Your task to perform on an android device: Clear the cart on walmart.com. Add jbl flip 4 to the cart on walmart.com, then select checkout. Image 0: 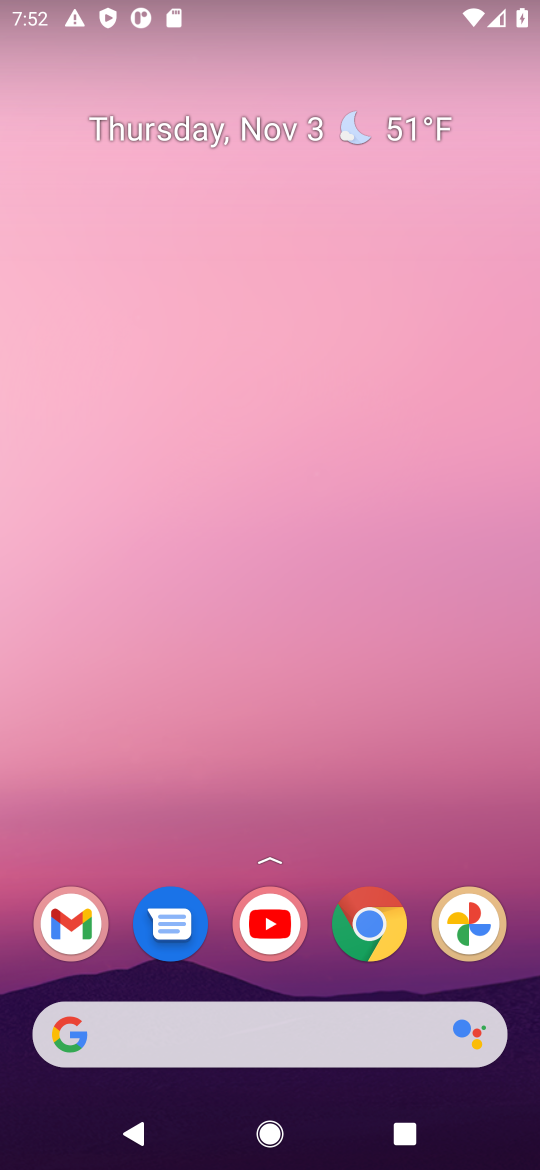
Step 0: drag from (197, 1042) to (297, 26)
Your task to perform on an android device: Clear the cart on walmart.com. Add jbl flip 4 to the cart on walmart.com, then select checkout. Image 1: 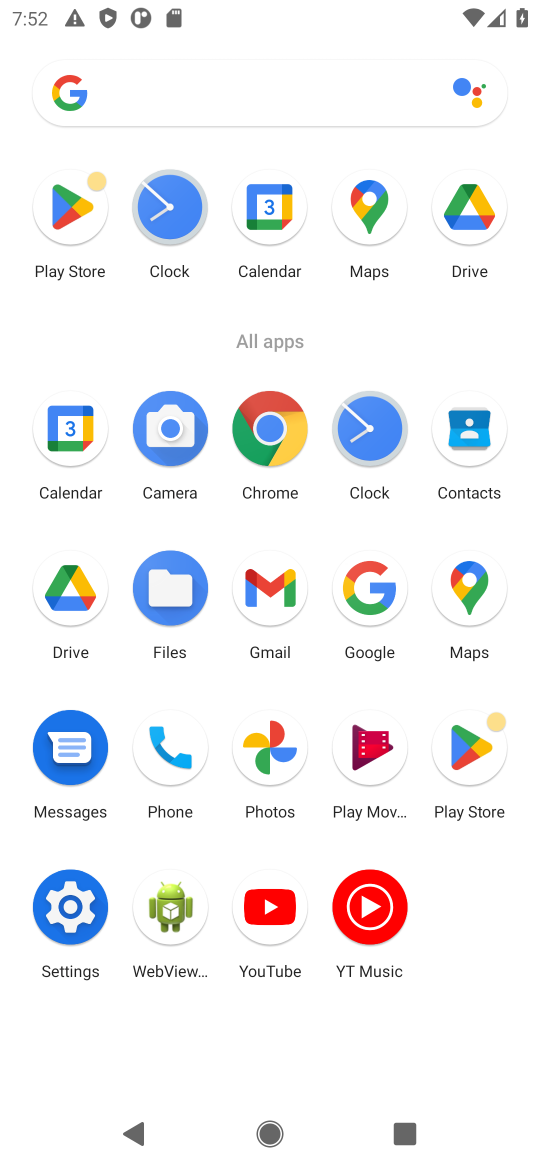
Step 1: click (355, 578)
Your task to perform on an android device: Clear the cart on walmart.com. Add jbl flip 4 to the cart on walmart.com, then select checkout. Image 2: 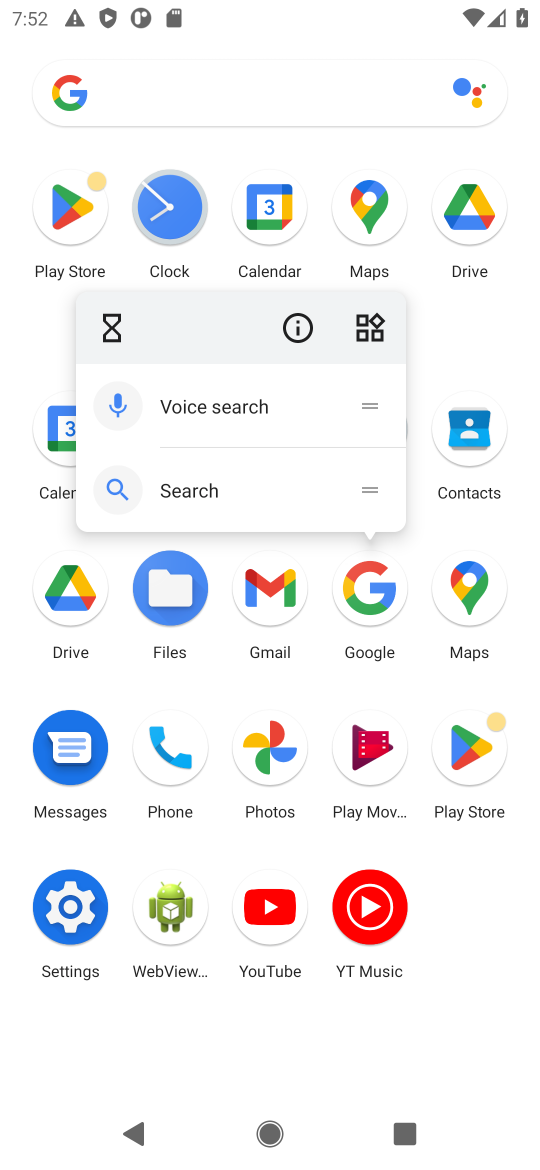
Step 2: click (358, 584)
Your task to perform on an android device: Clear the cart on walmart.com. Add jbl flip 4 to the cart on walmart.com, then select checkout. Image 3: 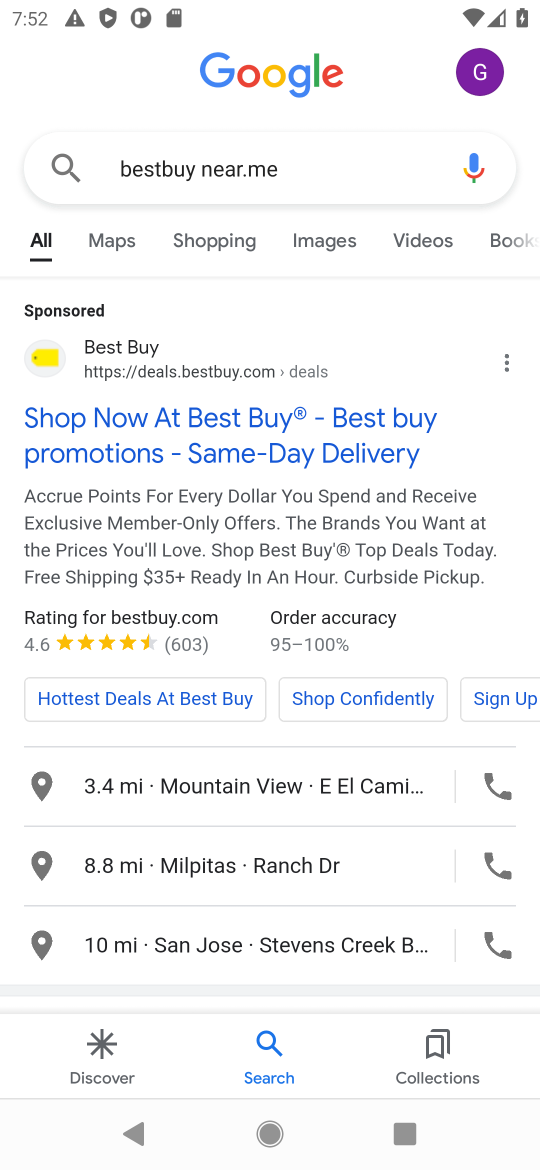
Step 3: click (283, 143)
Your task to perform on an android device: Clear the cart on walmart.com. Add jbl flip 4 to the cart on walmart.com, then select checkout. Image 4: 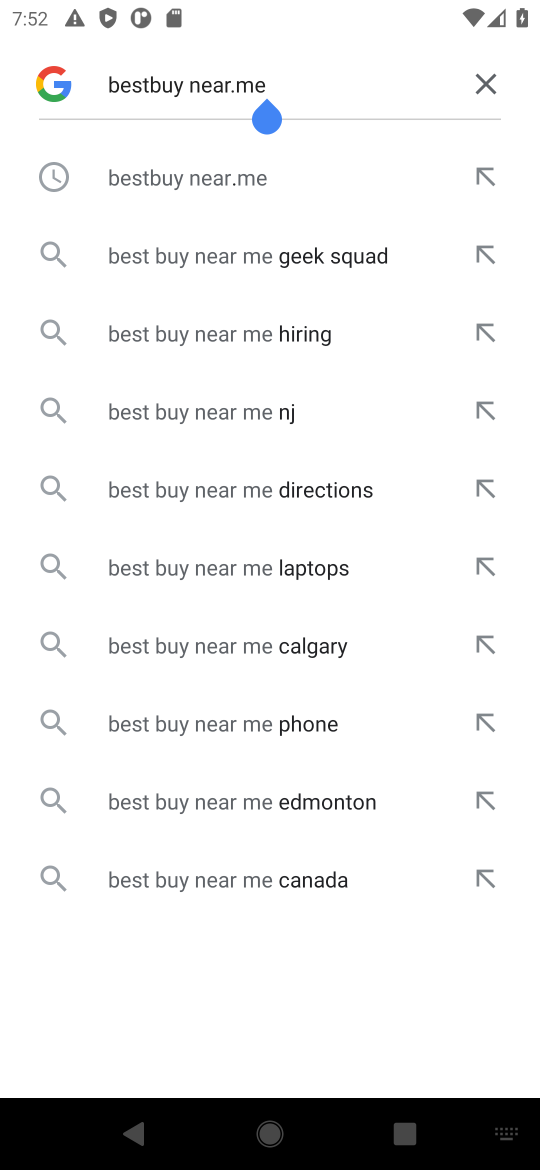
Step 4: click (484, 90)
Your task to perform on an android device: Clear the cart on walmart.com. Add jbl flip 4 to the cart on walmart.com, then select checkout. Image 5: 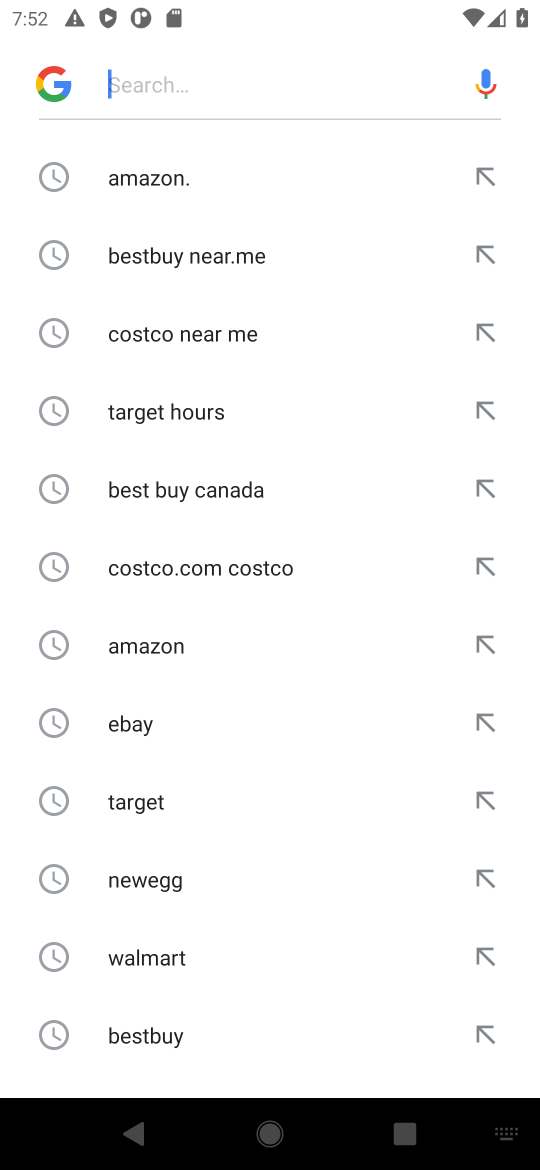
Step 5: click (225, 59)
Your task to perform on an android device: Clear the cart on walmart.com. Add jbl flip 4 to the cart on walmart.com, then select checkout. Image 6: 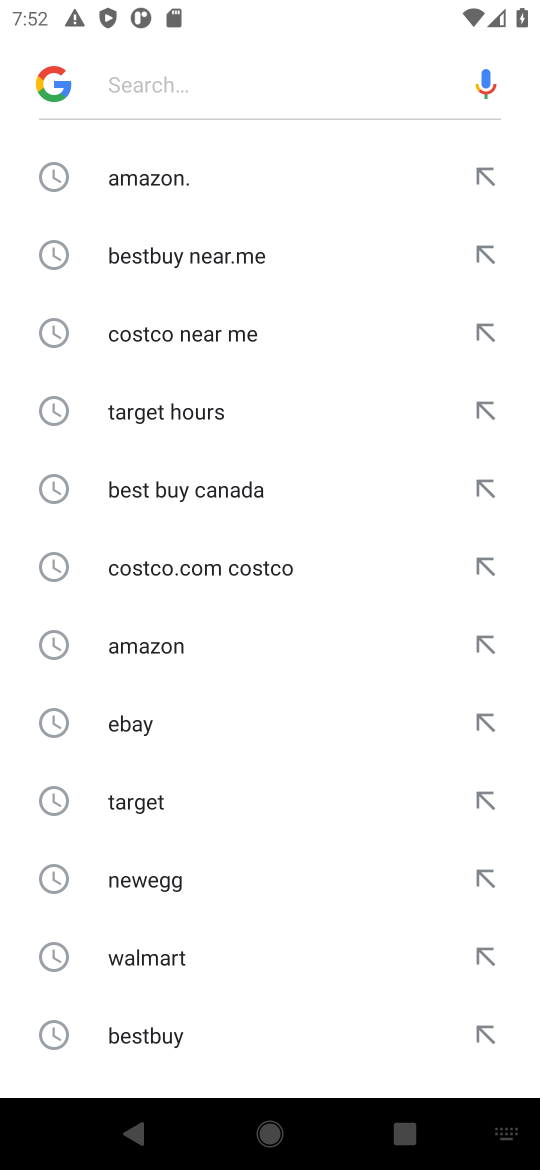
Step 6: click (222, 74)
Your task to perform on an android device: Clear the cart on walmart.com. Add jbl flip 4 to the cart on walmart.com, then select checkout. Image 7: 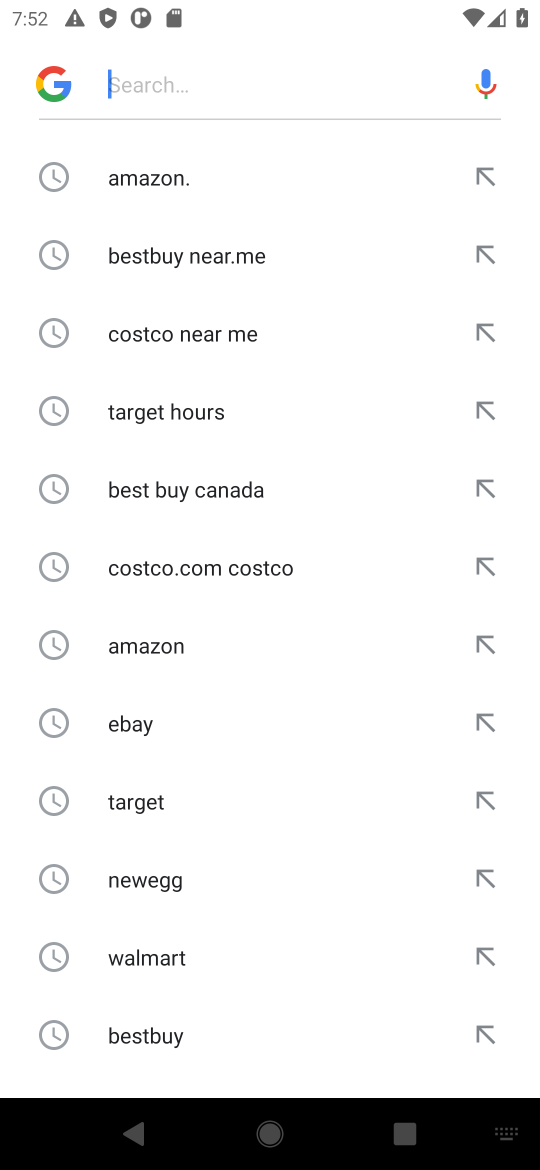
Step 7: type "walmart "
Your task to perform on an android device: Clear the cart on walmart.com. Add jbl flip 4 to the cart on walmart.com, then select checkout. Image 8: 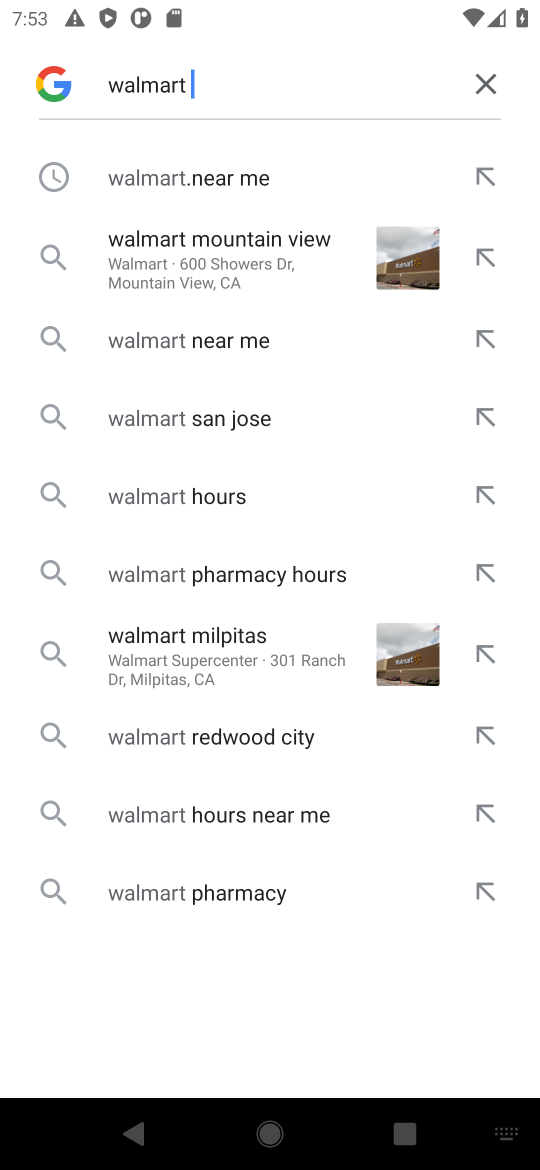
Step 8: click (198, 185)
Your task to perform on an android device: Clear the cart on walmart.com. Add jbl flip 4 to the cart on walmart.com, then select checkout. Image 9: 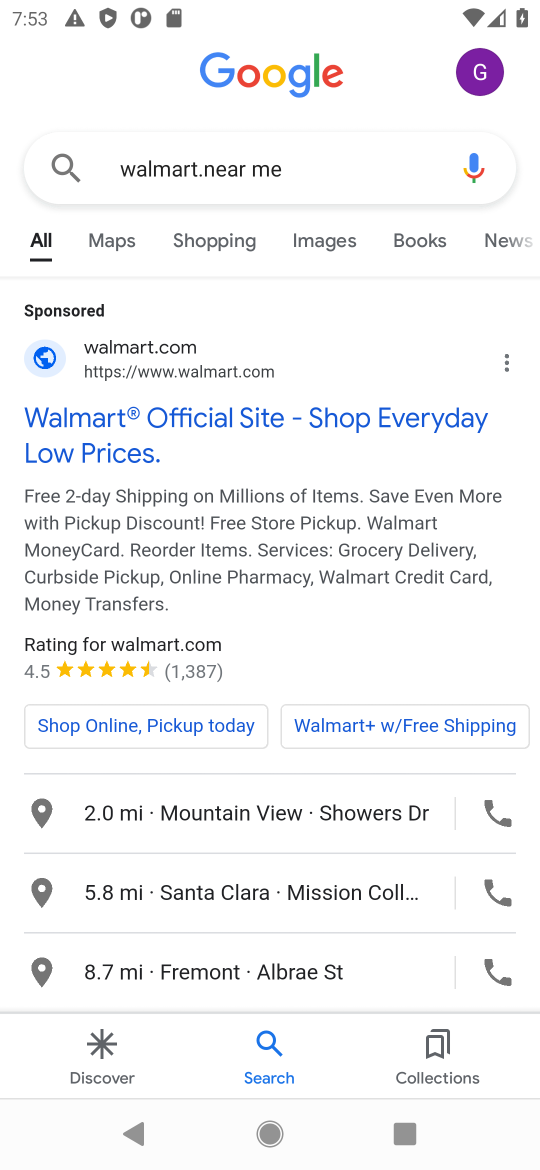
Step 9: drag from (112, 907) to (219, 392)
Your task to perform on an android device: Clear the cart on walmart.com. Add jbl flip 4 to the cart on walmart.com, then select checkout. Image 10: 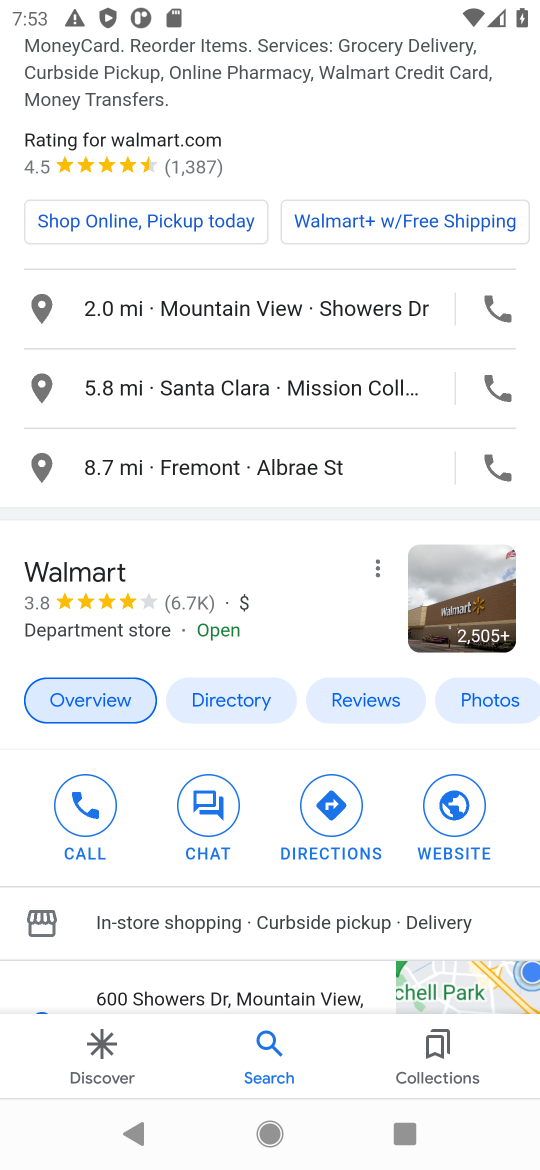
Step 10: drag from (227, 978) to (297, 284)
Your task to perform on an android device: Clear the cart on walmart.com. Add jbl flip 4 to the cart on walmart.com, then select checkout. Image 11: 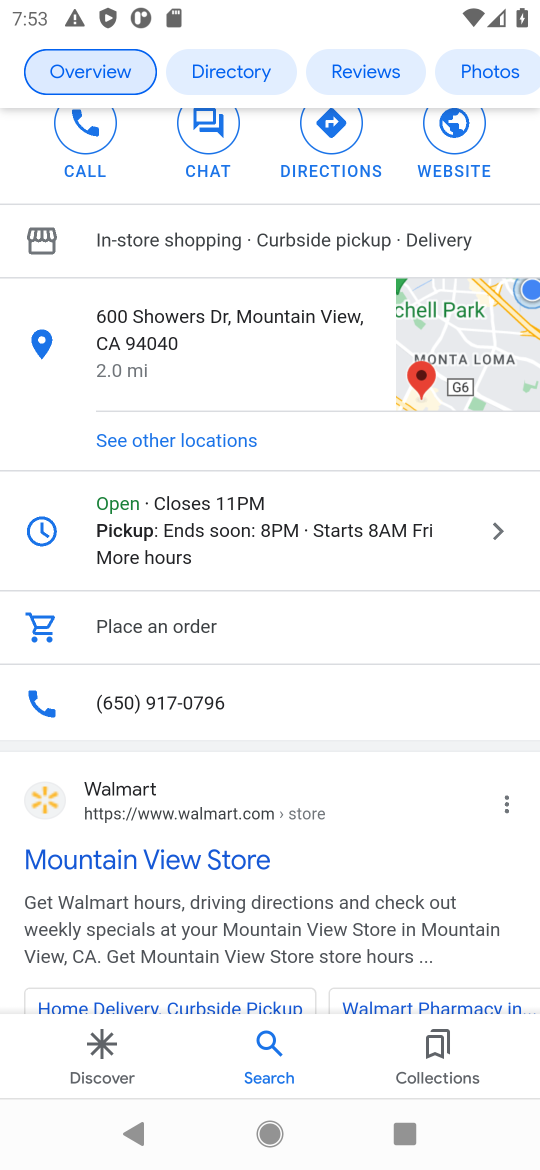
Step 11: click (51, 798)
Your task to perform on an android device: Clear the cart on walmart.com. Add jbl flip 4 to the cart on walmart.com, then select checkout. Image 12: 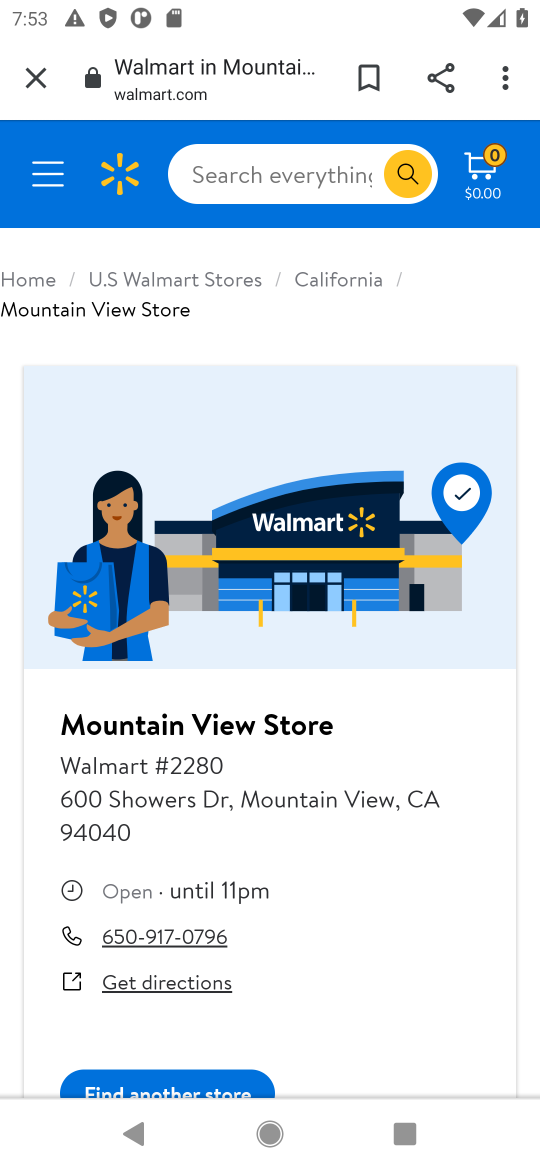
Step 12: click (300, 175)
Your task to perform on an android device: Clear the cart on walmart.com. Add jbl flip 4 to the cart on walmart.com, then select checkout. Image 13: 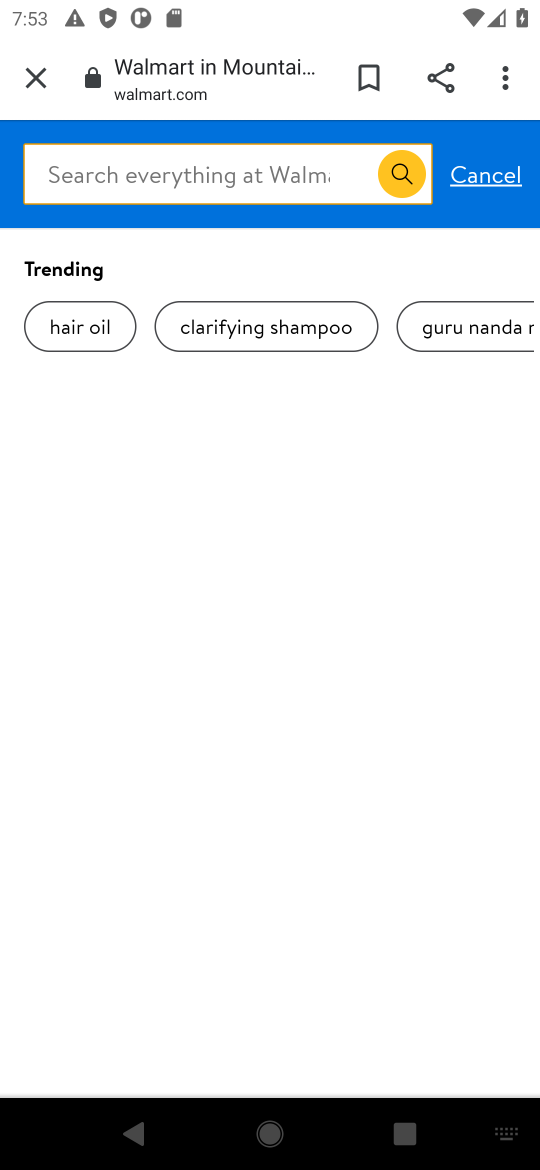
Step 13: click (273, 162)
Your task to perform on an android device: Clear the cart on walmart.com. Add jbl flip 4 to the cart on walmart.com, then select checkout. Image 14: 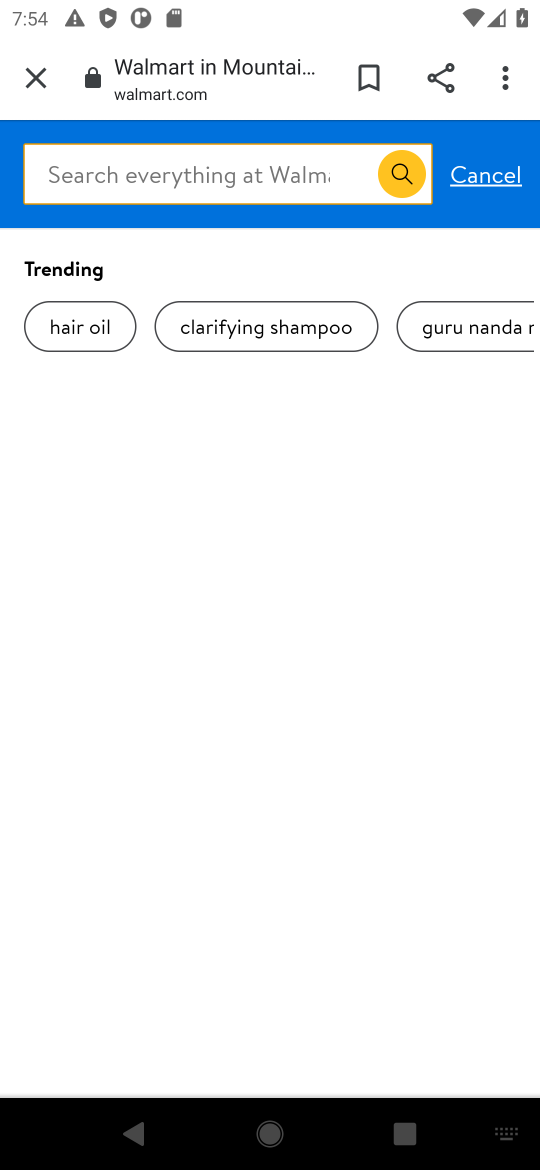
Step 14: type "jbl flip 4 "
Your task to perform on an android device: Clear the cart on walmart.com. Add jbl flip 4 to the cart on walmart.com, then select checkout. Image 15: 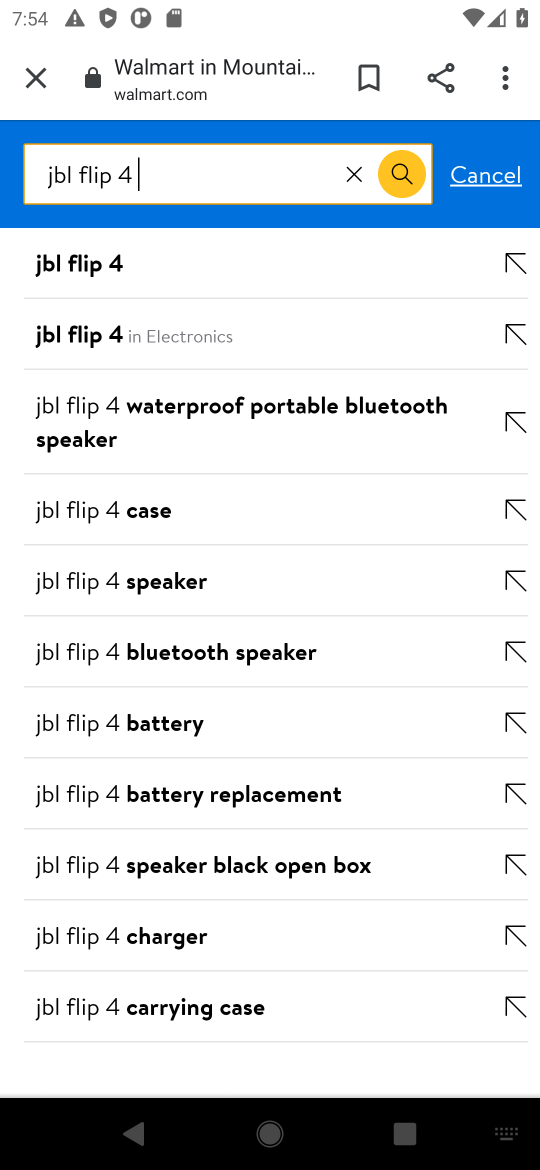
Step 15: click (85, 259)
Your task to perform on an android device: Clear the cart on walmart.com. Add jbl flip 4 to the cart on walmart.com, then select checkout. Image 16: 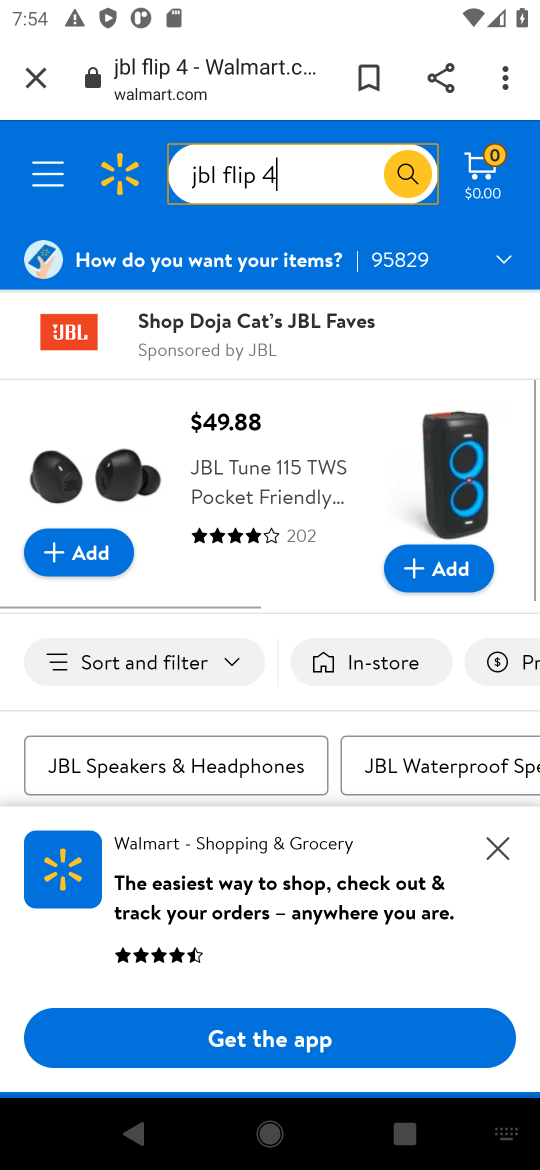
Step 16: click (501, 848)
Your task to perform on an android device: Clear the cart on walmart.com. Add jbl flip 4 to the cart on walmart.com, then select checkout. Image 17: 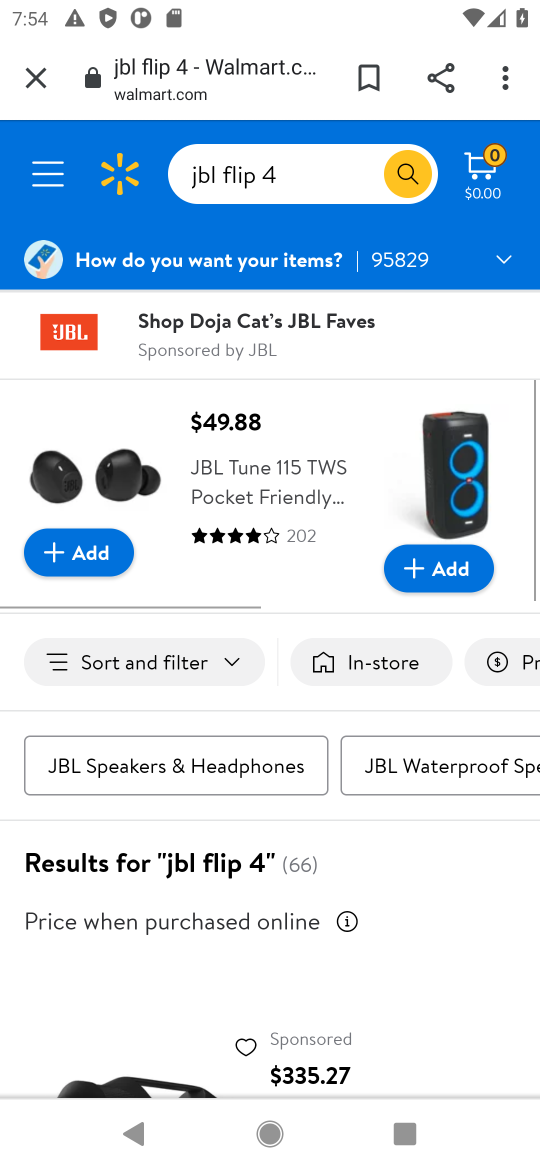
Step 17: click (77, 528)
Your task to perform on an android device: Clear the cart on walmart.com. Add jbl flip 4 to the cart on walmart.com, then select checkout. Image 18: 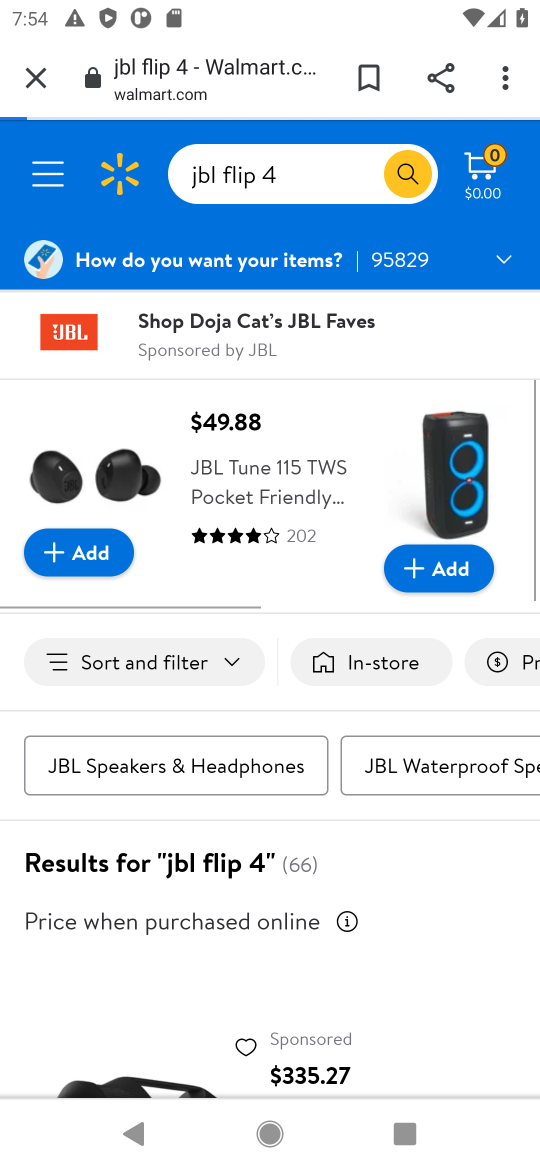
Step 18: click (77, 549)
Your task to perform on an android device: Clear the cart on walmart.com. Add jbl flip 4 to the cart on walmart.com, then select checkout. Image 19: 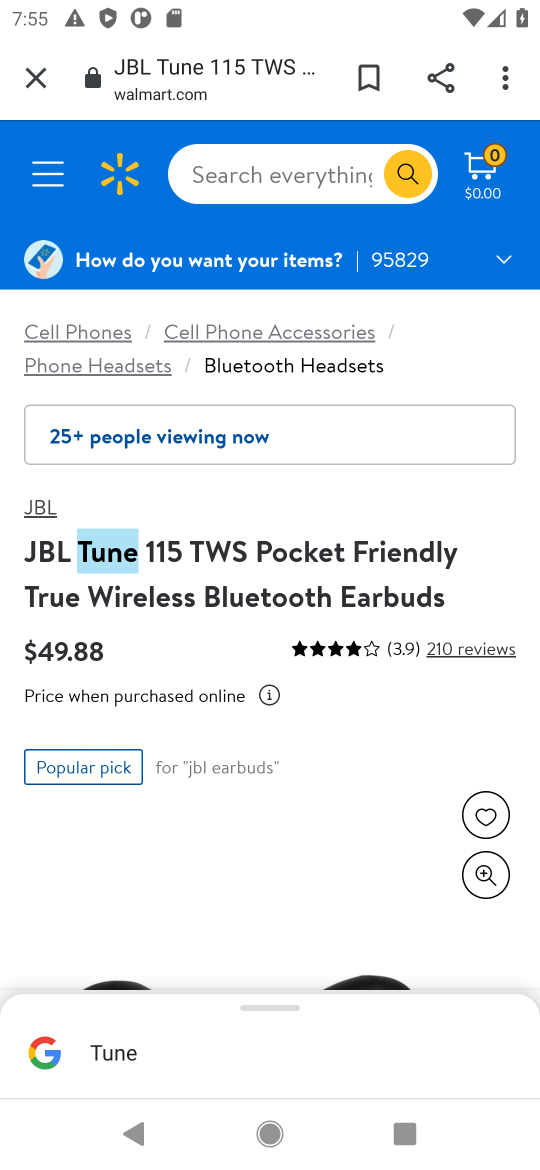
Step 19: drag from (415, 853) to (434, 269)
Your task to perform on an android device: Clear the cart on walmart.com. Add jbl flip 4 to the cart on walmart.com, then select checkout. Image 20: 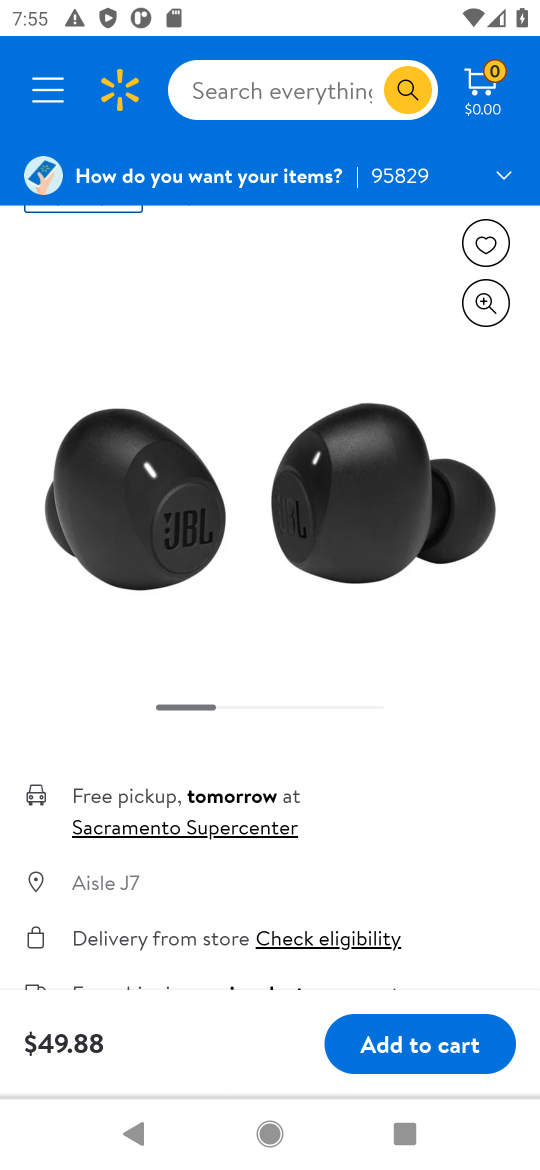
Step 20: click (352, 1048)
Your task to perform on an android device: Clear the cart on walmart.com. Add jbl flip 4 to the cart on walmart.com, then select checkout. Image 21: 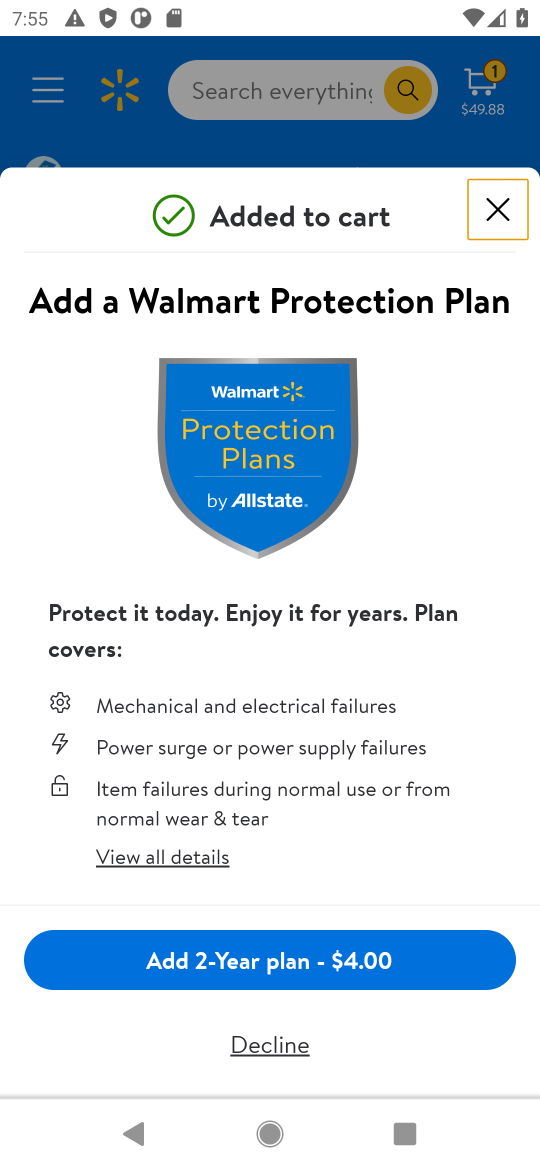
Step 21: task complete